Your task to perform on an android device: turn off translation in the chrome app Image 0: 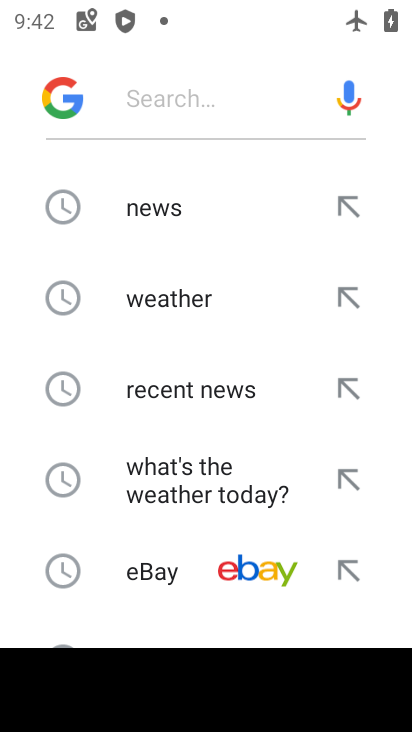
Step 0: press home button
Your task to perform on an android device: turn off translation in the chrome app Image 1: 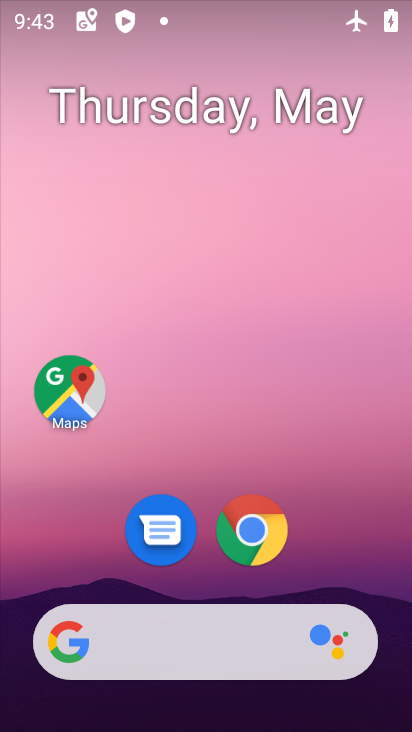
Step 1: click (257, 551)
Your task to perform on an android device: turn off translation in the chrome app Image 2: 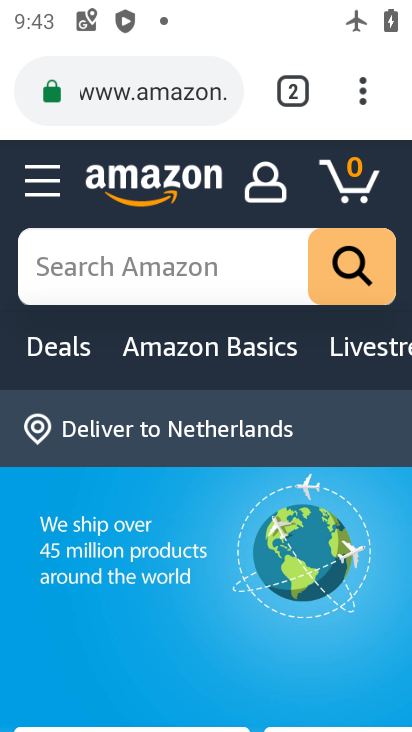
Step 2: click (357, 94)
Your task to perform on an android device: turn off translation in the chrome app Image 3: 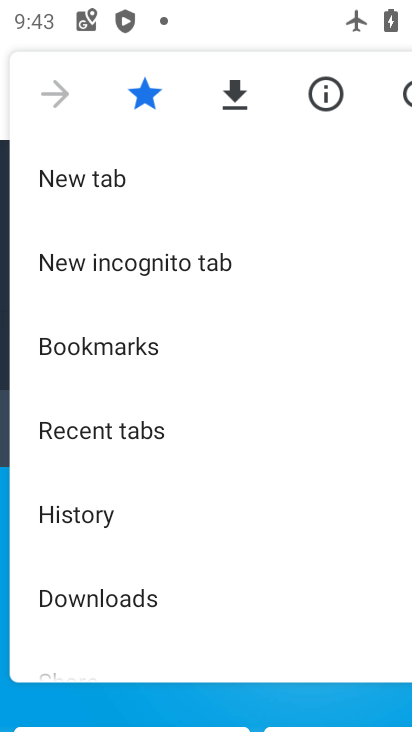
Step 3: drag from (216, 622) to (207, 148)
Your task to perform on an android device: turn off translation in the chrome app Image 4: 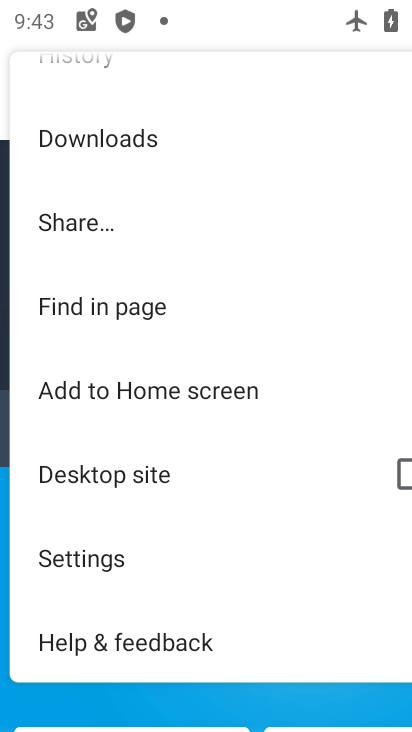
Step 4: click (108, 571)
Your task to perform on an android device: turn off translation in the chrome app Image 5: 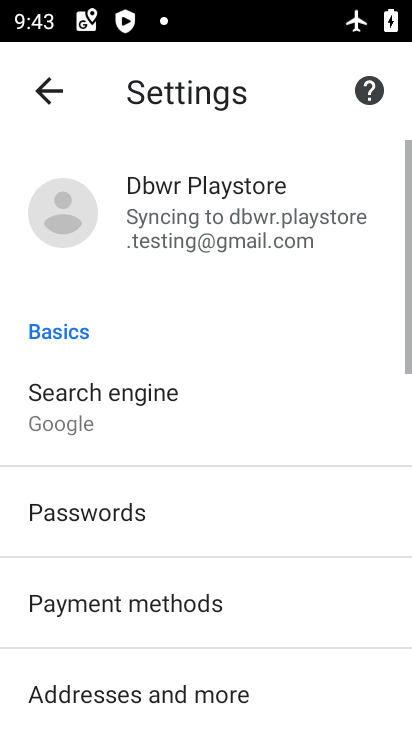
Step 5: drag from (302, 610) to (266, 77)
Your task to perform on an android device: turn off translation in the chrome app Image 6: 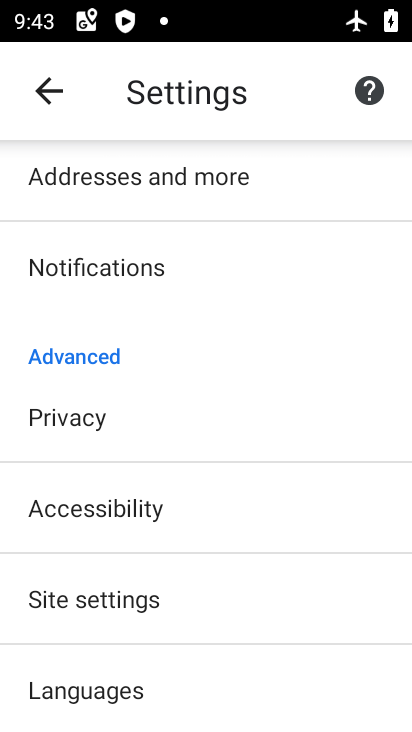
Step 6: click (125, 702)
Your task to perform on an android device: turn off translation in the chrome app Image 7: 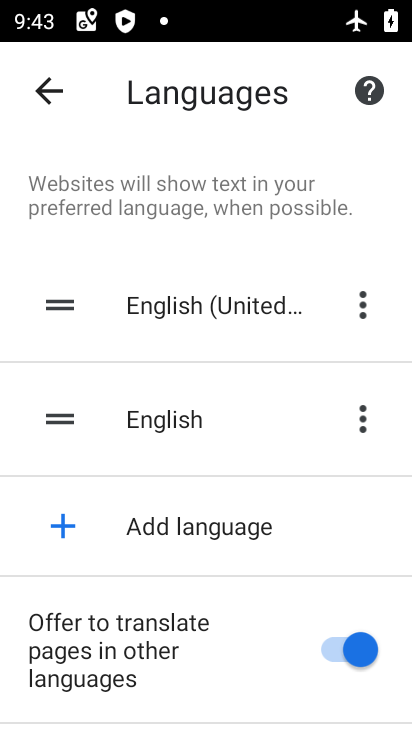
Step 7: click (353, 648)
Your task to perform on an android device: turn off translation in the chrome app Image 8: 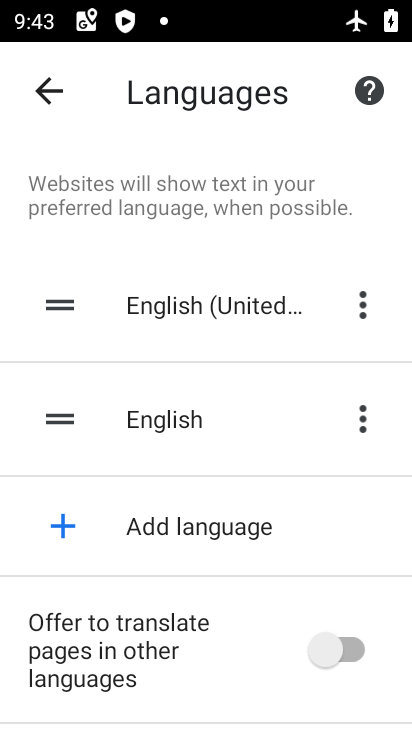
Step 8: task complete